Your task to perform on an android device: toggle translation in the chrome app Image 0: 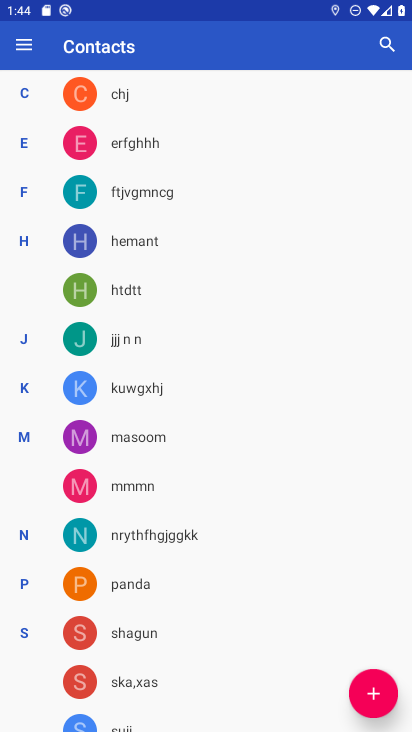
Step 0: press home button
Your task to perform on an android device: toggle translation in the chrome app Image 1: 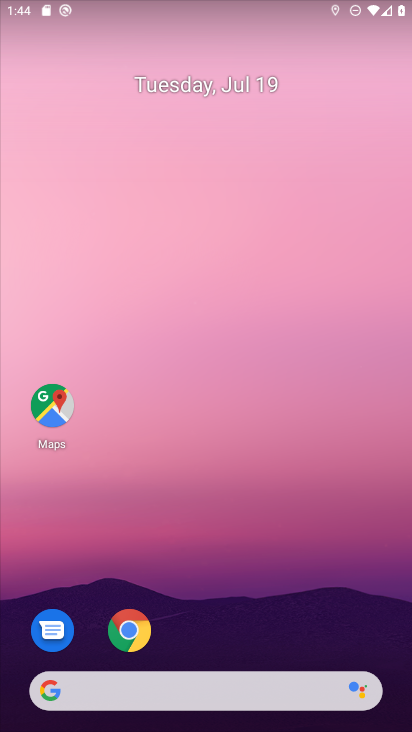
Step 1: click (136, 637)
Your task to perform on an android device: toggle translation in the chrome app Image 2: 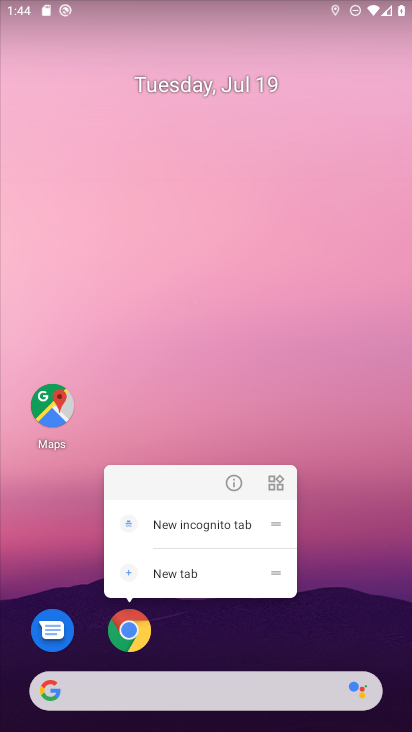
Step 2: click (130, 623)
Your task to perform on an android device: toggle translation in the chrome app Image 3: 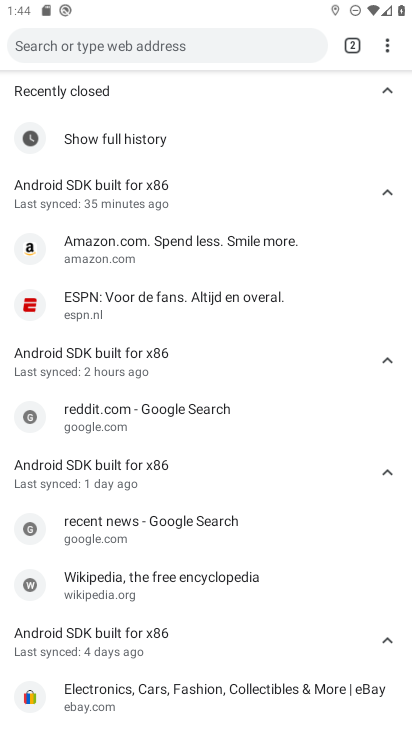
Step 3: drag from (385, 39) to (270, 381)
Your task to perform on an android device: toggle translation in the chrome app Image 4: 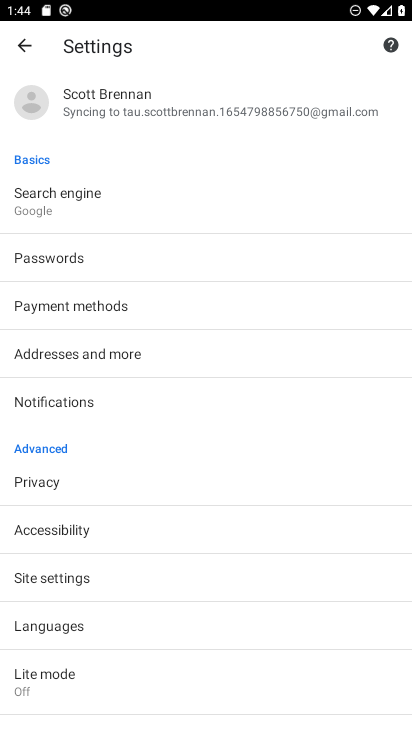
Step 4: click (67, 632)
Your task to perform on an android device: toggle translation in the chrome app Image 5: 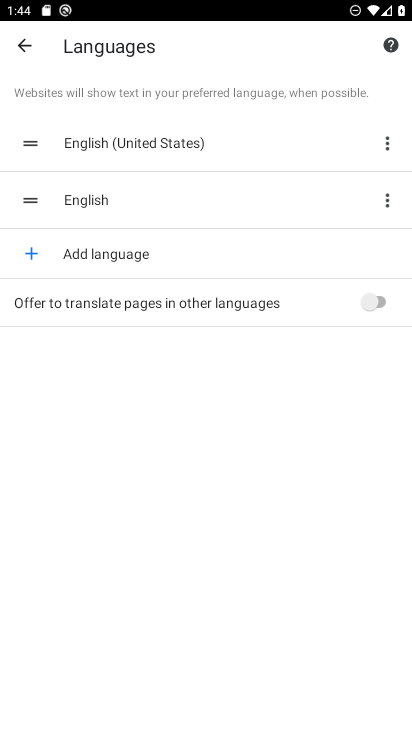
Step 5: click (380, 298)
Your task to perform on an android device: toggle translation in the chrome app Image 6: 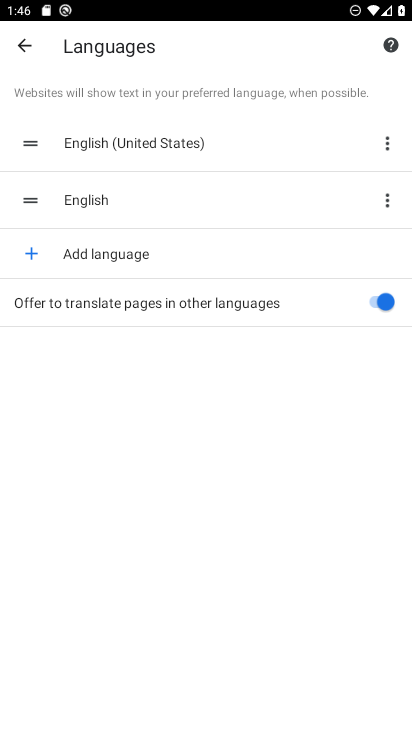
Step 6: task complete